Your task to perform on an android device: turn notification dots off Image 0: 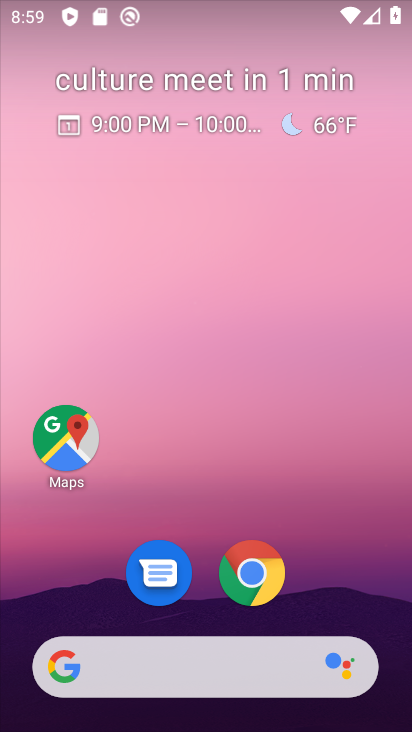
Step 0: drag from (203, 522) to (237, 50)
Your task to perform on an android device: turn notification dots off Image 1: 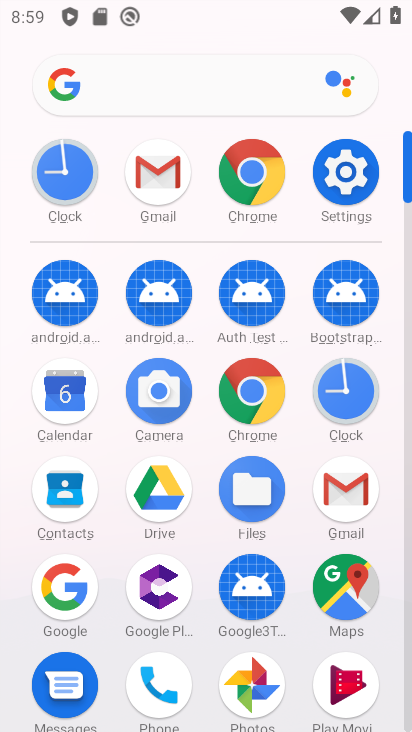
Step 1: click (360, 166)
Your task to perform on an android device: turn notification dots off Image 2: 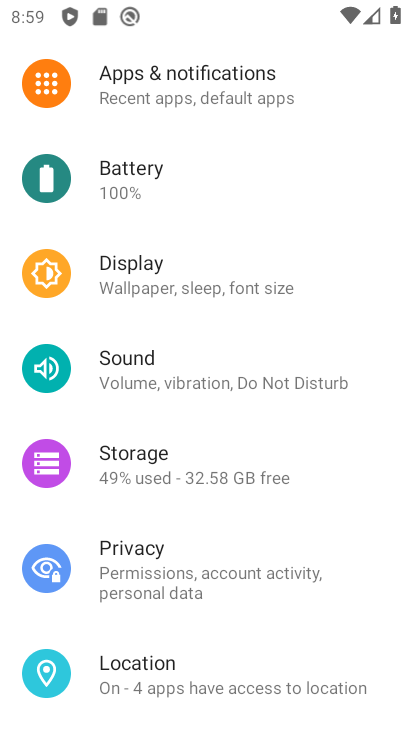
Step 2: click (199, 92)
Your task to perform on an android device: turn notification dots off Image 3: 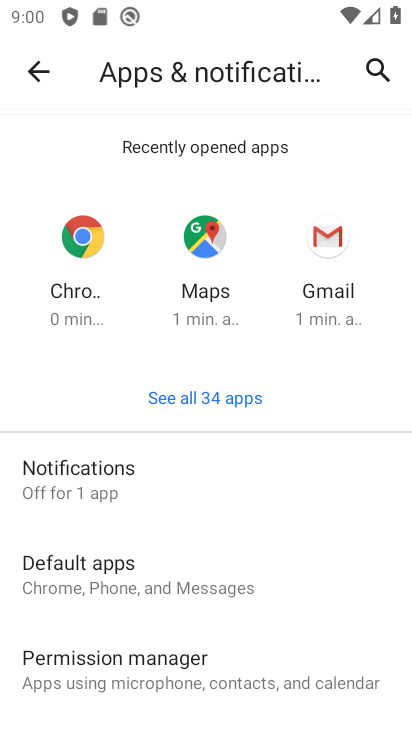
Step 3: click (150, 479)
Your task to perform on an android device: turn notification dots off Image 4: 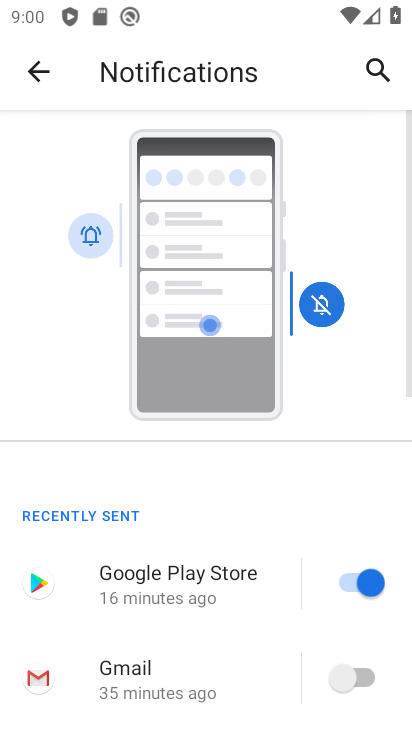
Step 4: drag from (158, 657) to (241, 232)
Your task to perform on an android device: turn notification dots off Image 5: 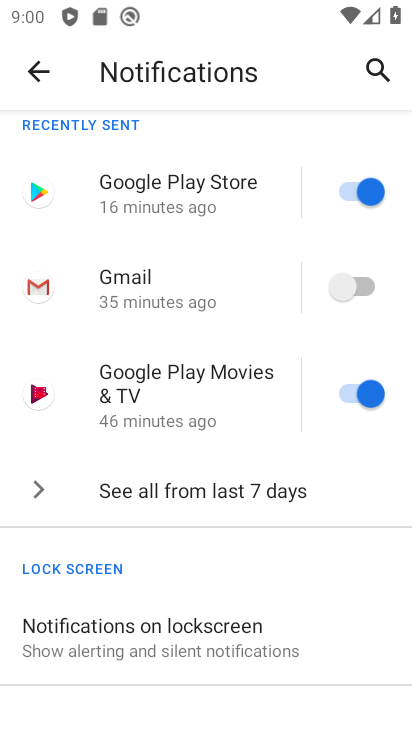
Step 5: drag from (167, 631) to (241, 188)
Your task to perform on an android device: turn notification dots off Image 6: 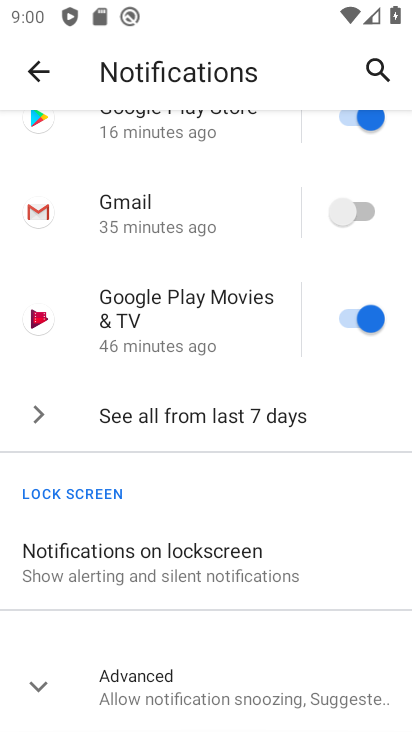
Step 6: click (170, 679)
Your task to perform on an android device: turn notification dots off Image 7: 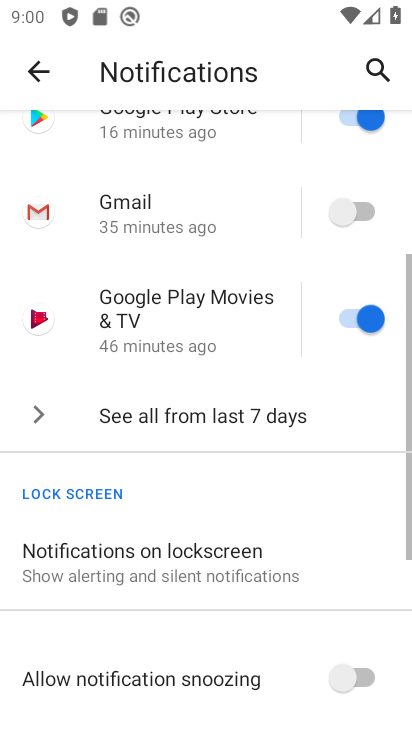
Step 7: task complete